Your task to perform on an android device: When is my next appointment? Image 0: 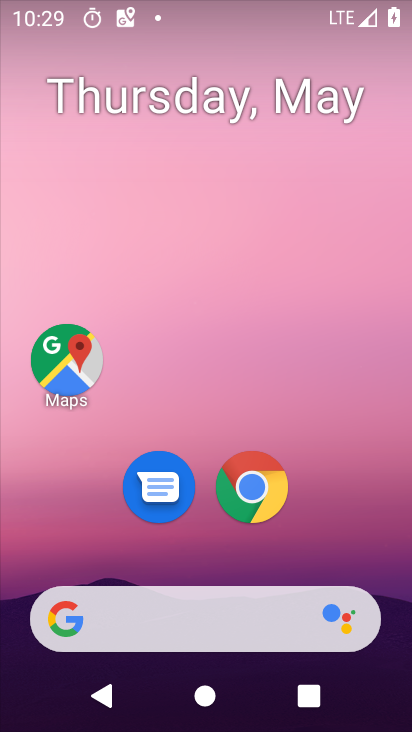
Step 0: drag from (198, 611) to (186, 320)
Your task to perform on an android device: When is my next appointment? Image 1: 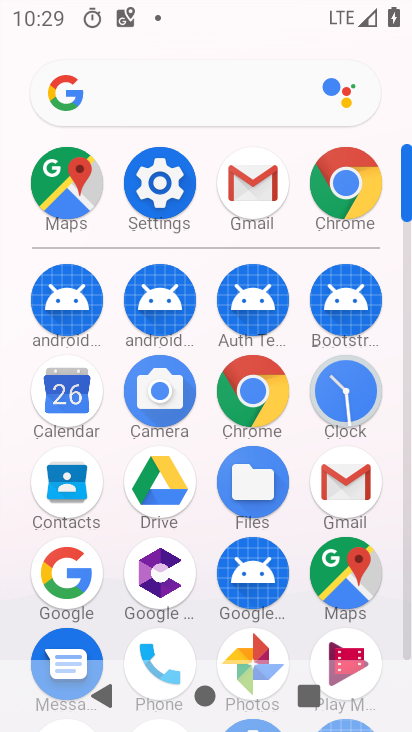
Step 1: click (77, 412)
Your task to perform on an android device: When is my next appointment? Image 2: 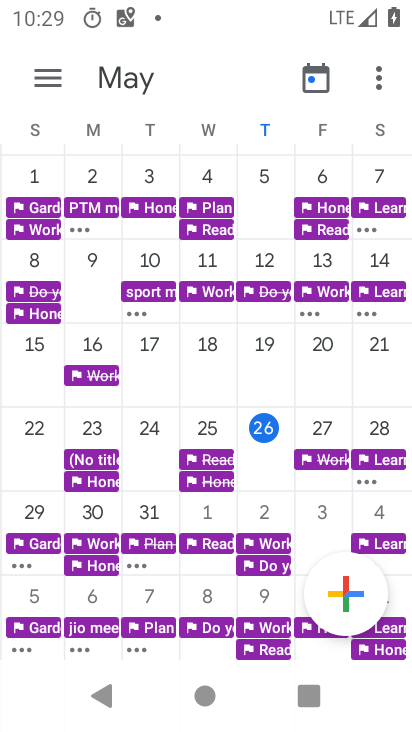
Step 2: click (59, 81)
Your task to perform on an android device: When is my next appointment? Image 3: 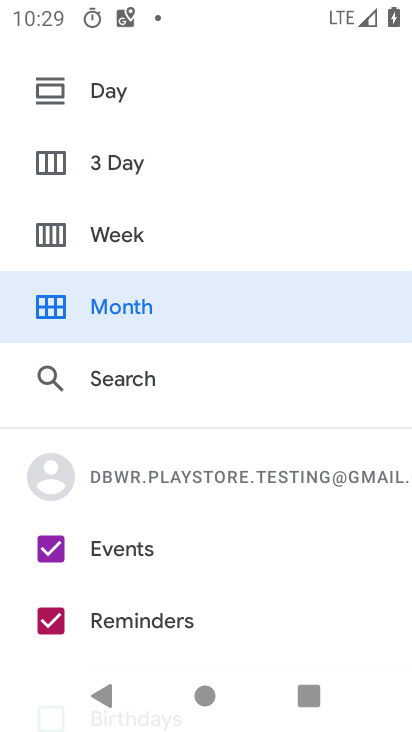
Step 3: task complete